Your task to perform on an android device: turn on javascript in the chrome app Image 0: 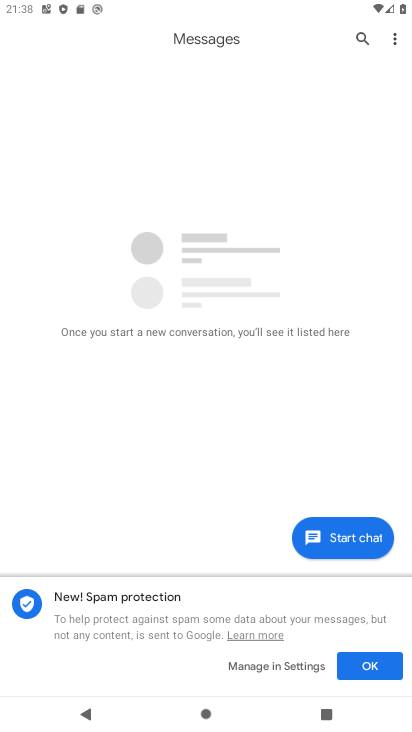
Step 0: press home button
Your task to perform on an android device: turn on javascript in the chrome app Image 1: 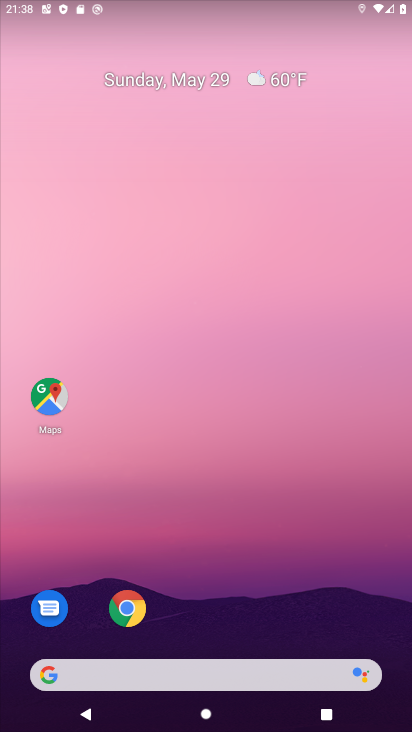
Step 1: drag from (382, 626) to (358, 166)
Your task to perform on an android device: turn on javascript in the chrome app Image 2: 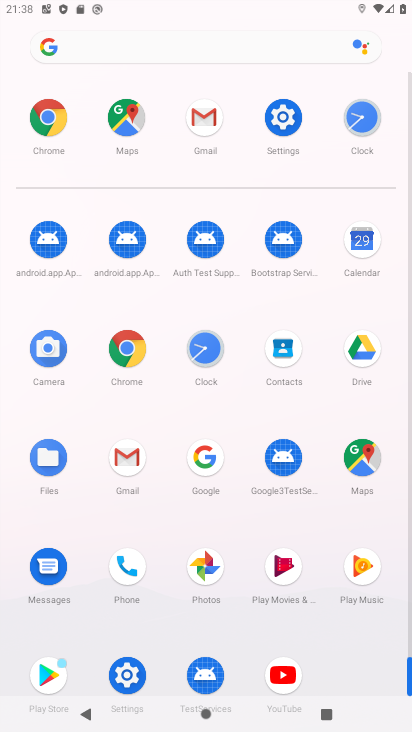
Step 2: click (136, 349)
Your task to perform on an android device: turn on javascript in the chrome app Image 3: 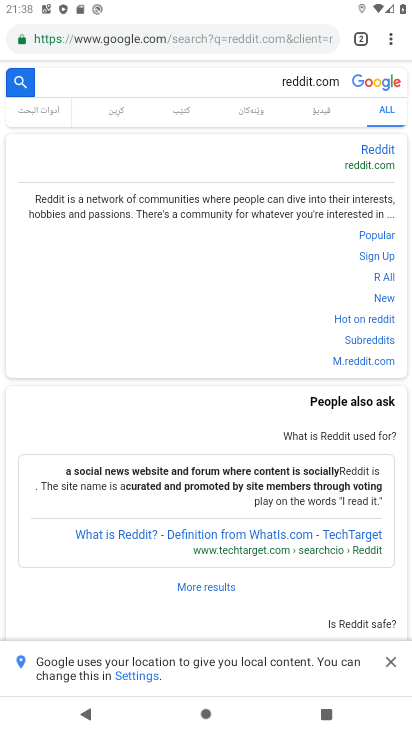
Step 3: click (391, 40)
Your task to perform on an android device: turn on javascript in the chrome app Image 4: 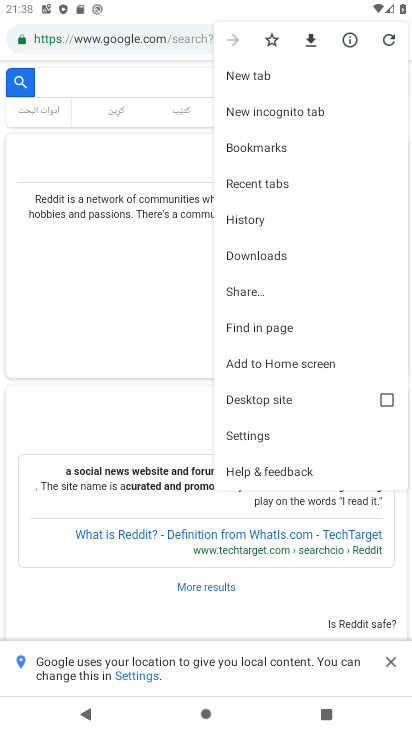
Step 4: click (264, 439)
Your task to perform on an android device: turn on javascript in the chrome app Image 5: 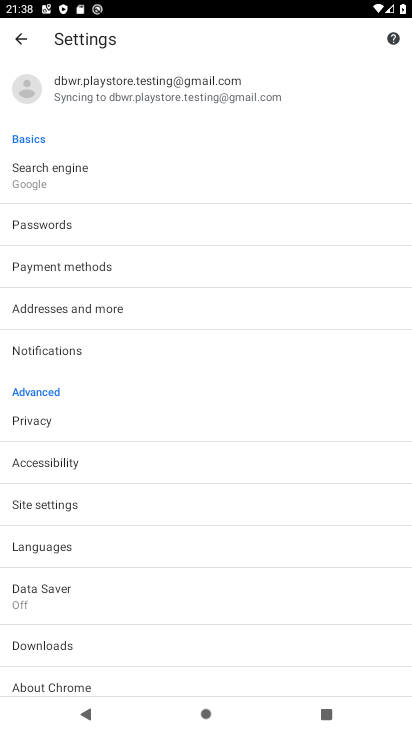
Step 5: click (221, 497)
Your task to perform on an android device: turn on javascript in the chrome app Image 6: 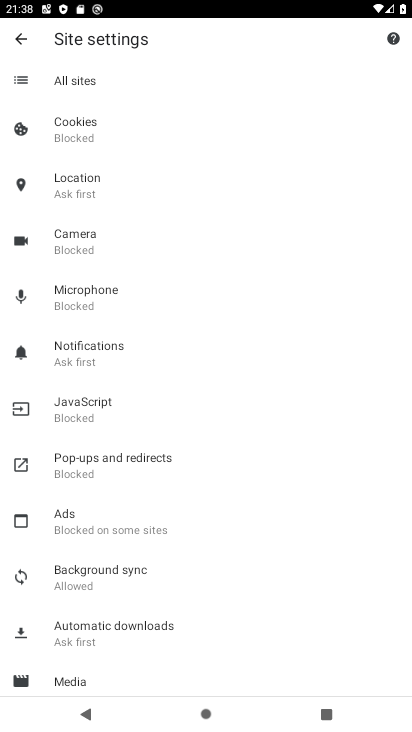
Step 6: click (136, 414)
Your task to perform on an android device: turn on javascript in the chrome app Image 7: 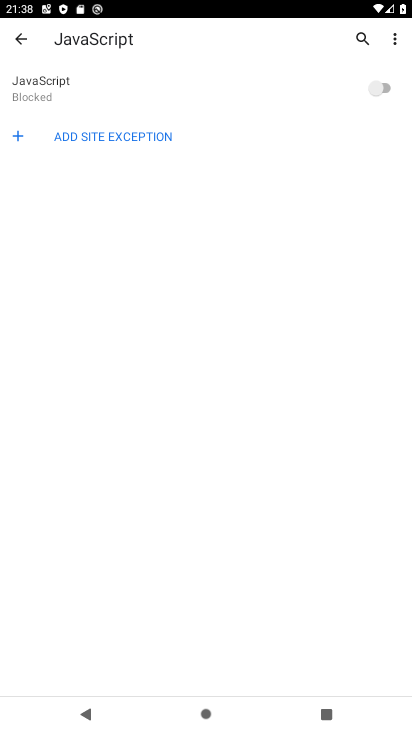
Step 7: click (373, 96)
Your task to perform on an android device: turn on javascript in the chrome app Image 8: 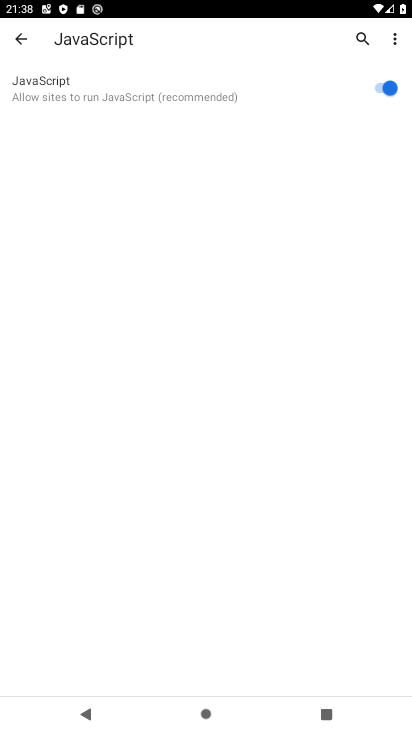
Step 8: task complete